Your task to perform on an android device: toggle improve location accuracy Image 0: 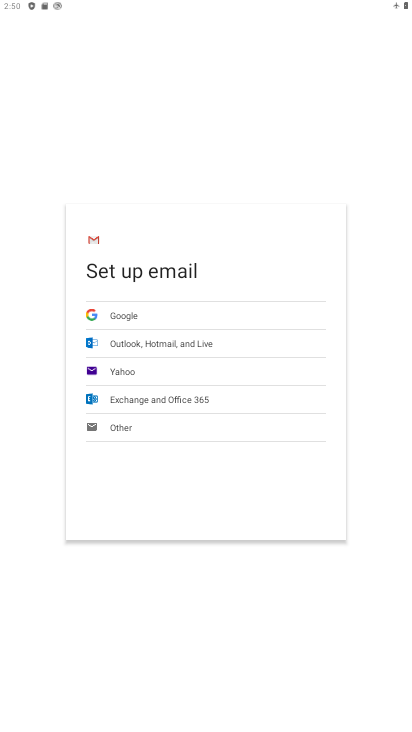
Step 0: press home button
Your task to perform on an android device: toggle improve location accuracy Image 1: 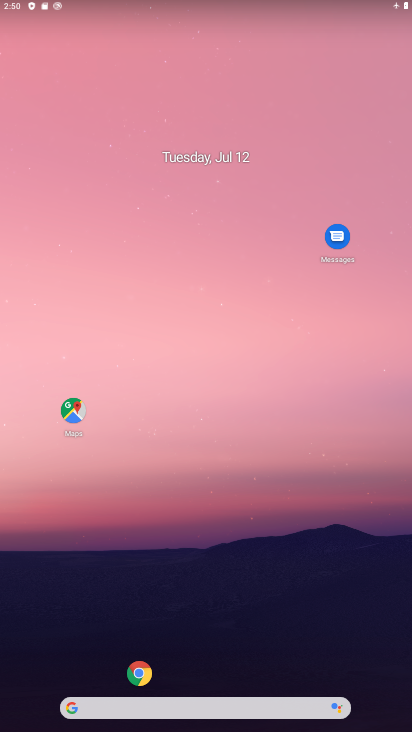
Step 1: drag from (36, 708) to (329, 15)
Your task to perform on an android device: toggle improve location accuracy Image 2: 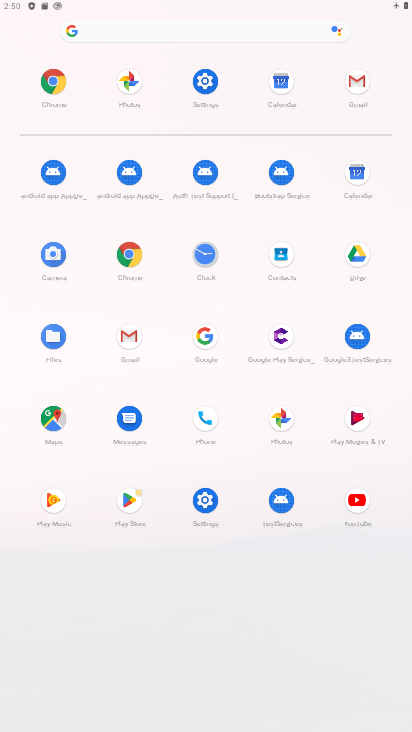
Step 2: click (194, 497)
Your task to perform on an android device: toggle improve location accuracy Image 3: 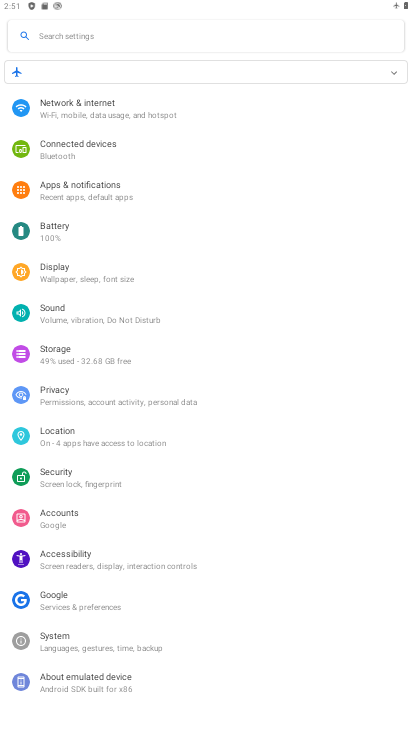
Step 3: click (69, 435)
Your task to perform on an android device: toggle improve location accuracy Image 4: 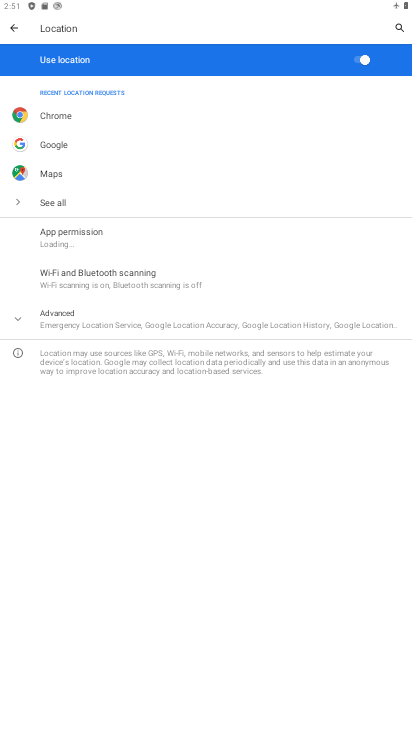
Step 4: click (84, 322)
Your task to perform on an android device: toggle improve location accuracy Image 5: 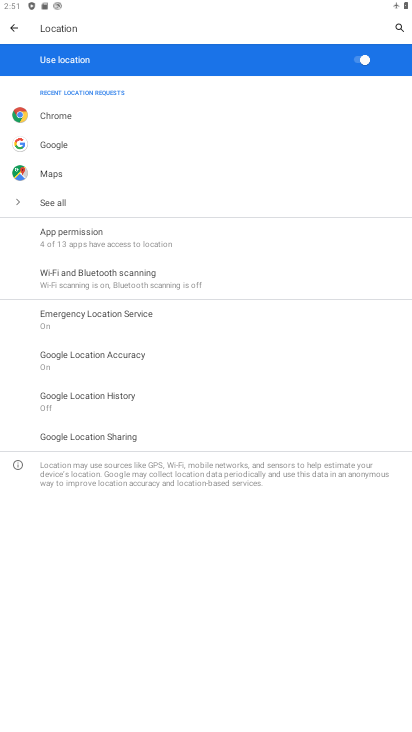
Step 5: click (103, 361)
Your task to perform on an android device: toggle improve location accuracy Image 6: 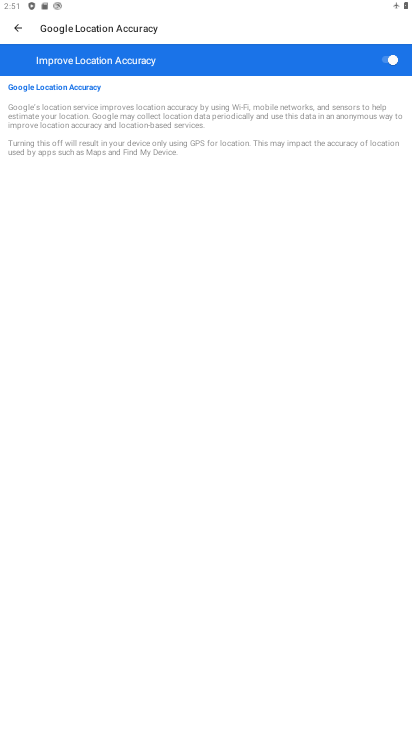
Step 6: click (390, 60)
Your task to perform on an android device: toggle improve location accuracy Image 7: 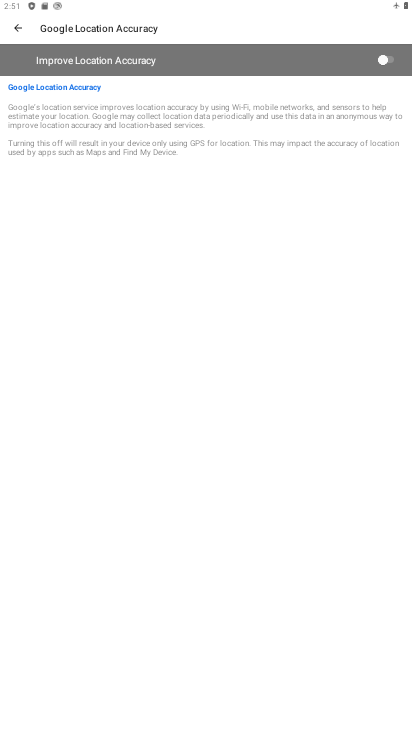
Step 7: task complete